Your task to perform on an android device: Open the calendar app, open the side menu, and click the "Day" option Image 0: 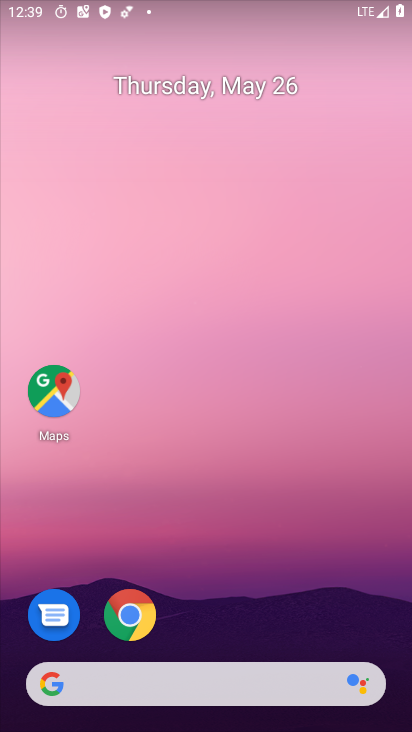
Step 0: drag from (242, 626) to (204, 299)
Your task to perform on an android device: Open the calendar app, open the side menu, and click the "Day" option Image 1: 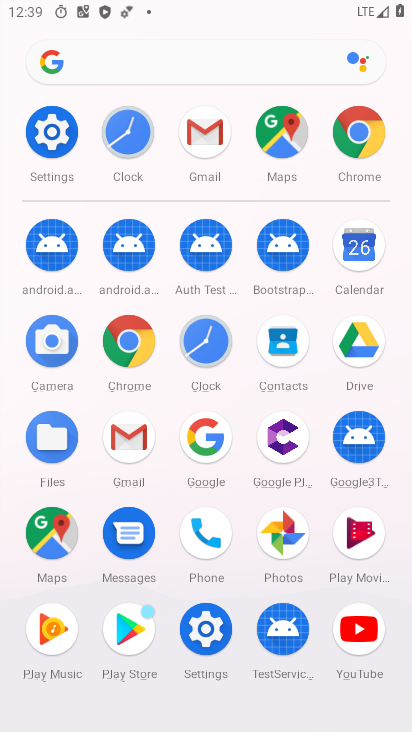
Step 1: click (354, 256)
Your task to perform on an android device: Open the calendar app, open the side menu, and click the "Day" option Image 2: 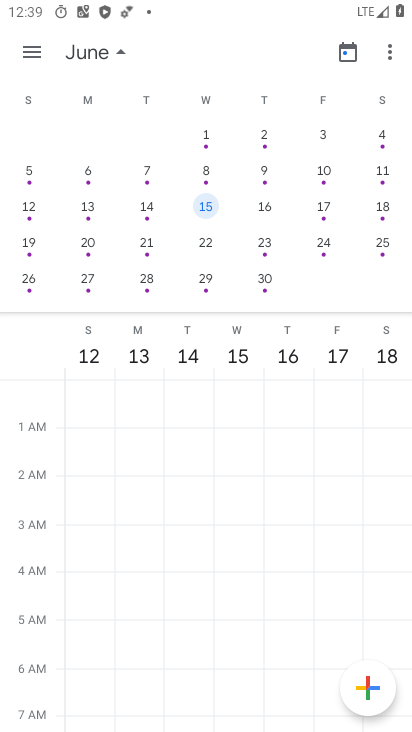
Step 2: click (22, 44)
Your task to perform on an android device: Open the calendar app, open the side menu, and click the "Day" option Image 3: 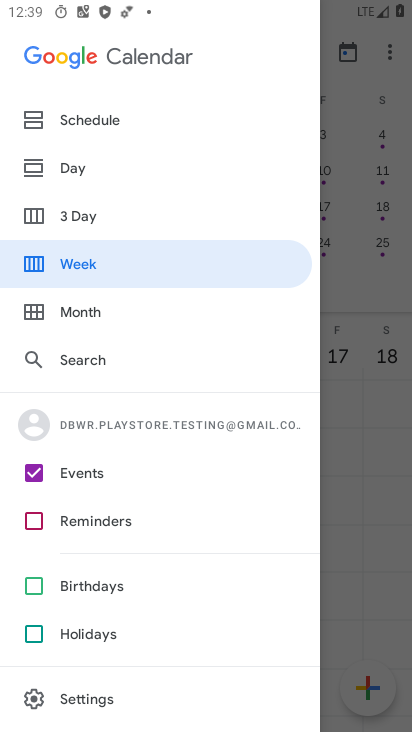
Step 3: click (74, 168)
Your task to perform on an android device: Open the calendar app, open the side menu, and click the "Day" option Image 4: 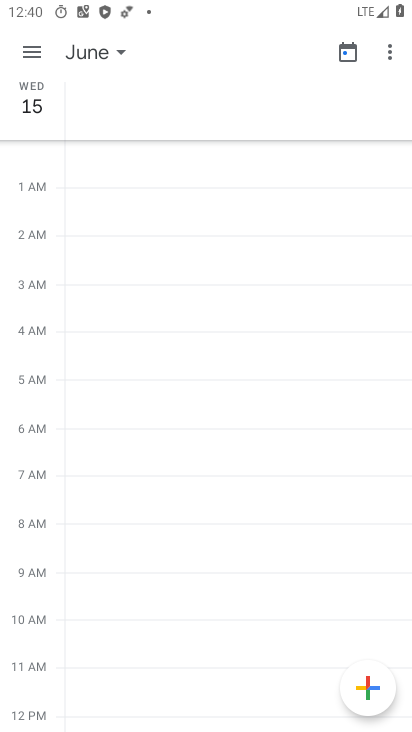
Step 4: task complete